Your task to perform on an android device: Is it going to rain today? Image 0: 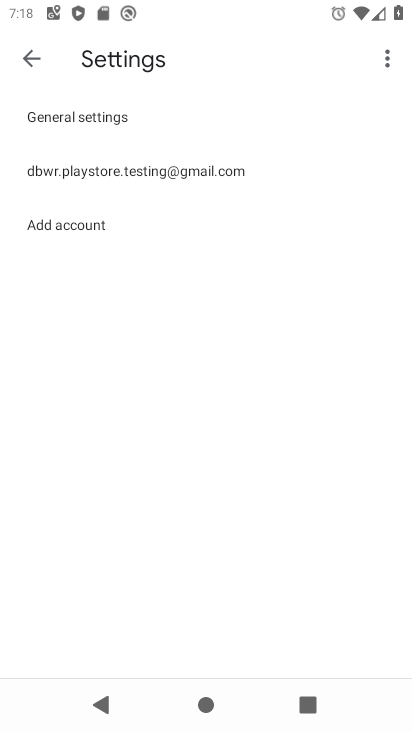
Step 0: press home button
Your task to perform on an android device: Is it going to rain today? Image 1: 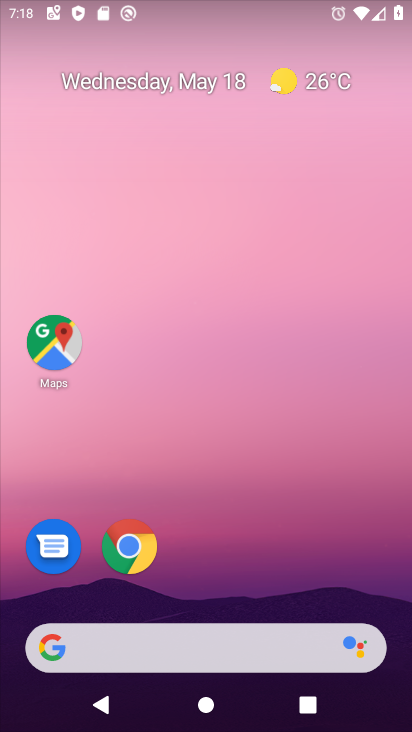
Step 1: drag from (380, 596) to (276, 36)
Your task to perform on an android device: Is it going to rain today? Image 2: 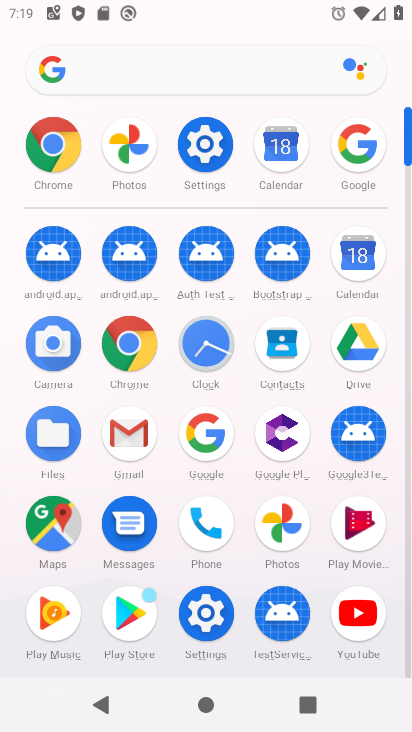
Step 2: click (193, 435)
Your task to perform on an android device: Is it going to rain today? Image 3: 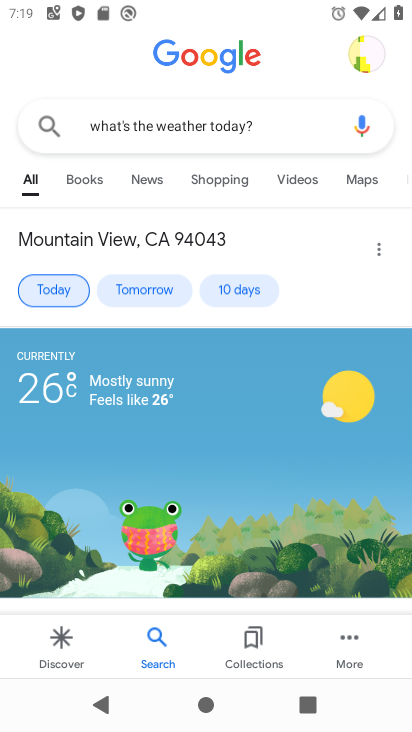
Step 3: press back button
Your task to perform on an android device: Is it going to rain today? Image 4: 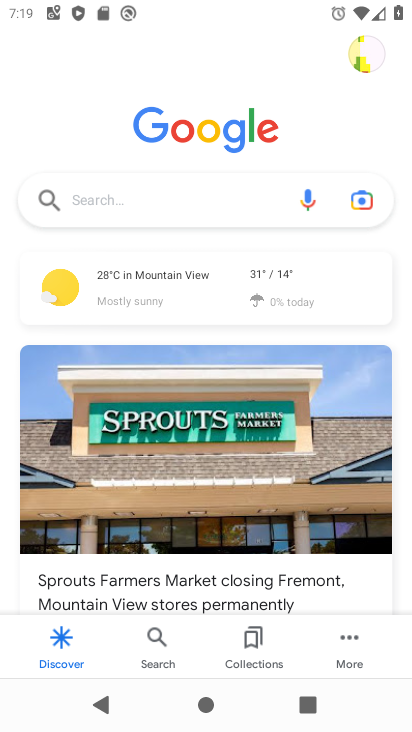
Step 4: click (99, 214)
Your task to perform on an android device: Is it going to rain today? Image 5: 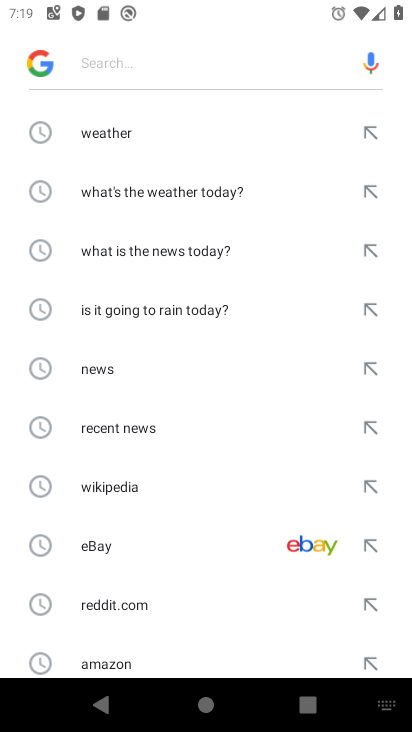
Step 5: click (177, 313)
Your task to perform on an android device: Is it going to rain today? Image 6: 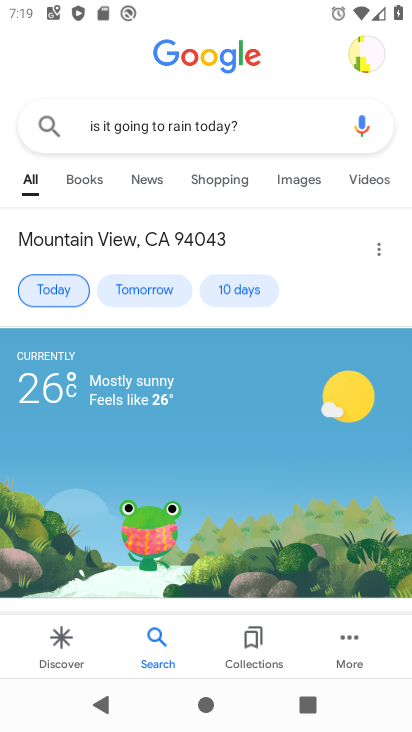
Step 6: task complete